Your task to perform on an android device: Open Android settings Image 0: 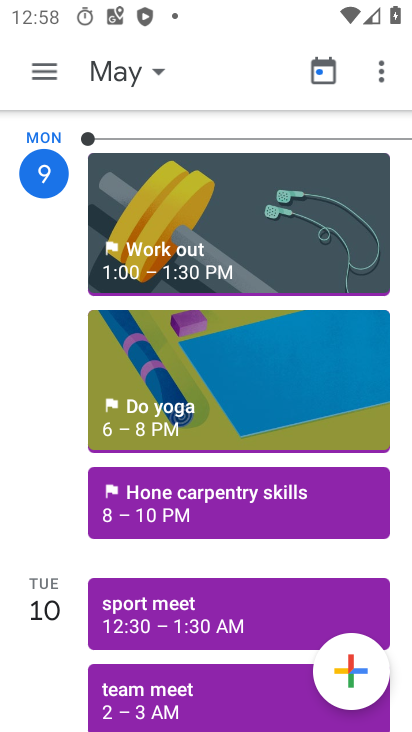
Step 0: press home button
Your task to perform on an android device: Open Android settings Image 1: 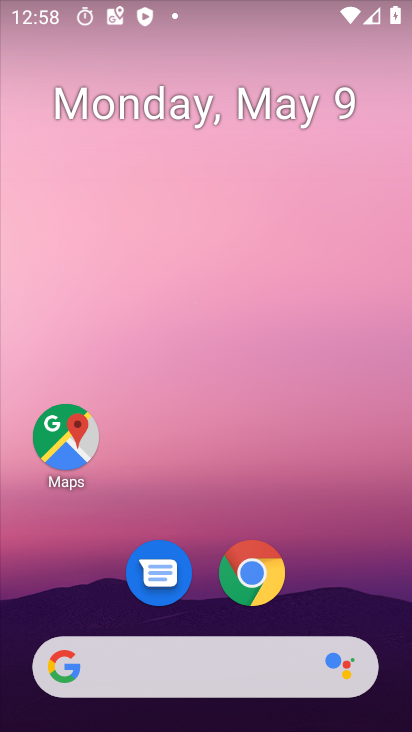
Step 1: drag from (319, 553) to (99, 120)
Your task to perform on an android device: Open Android settings Image 2: 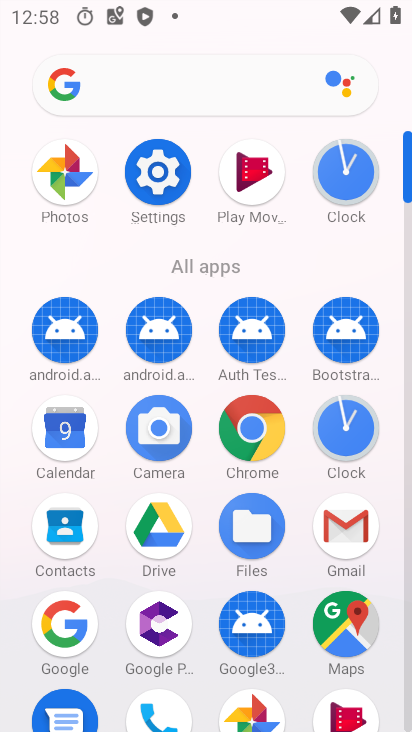
Step 2: click (139, 180)
Your task to perform on an android device: Open Android settings Image 3: 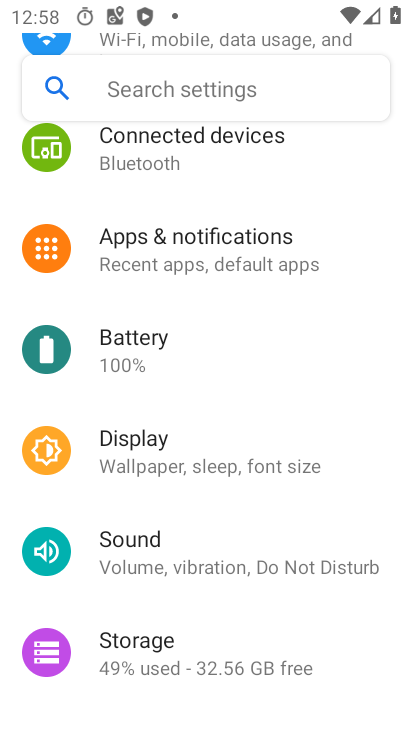
Step 3: drag from (223, 690) to (179, 174)
Your task to perform on an android device: Open Android settings Image 4: 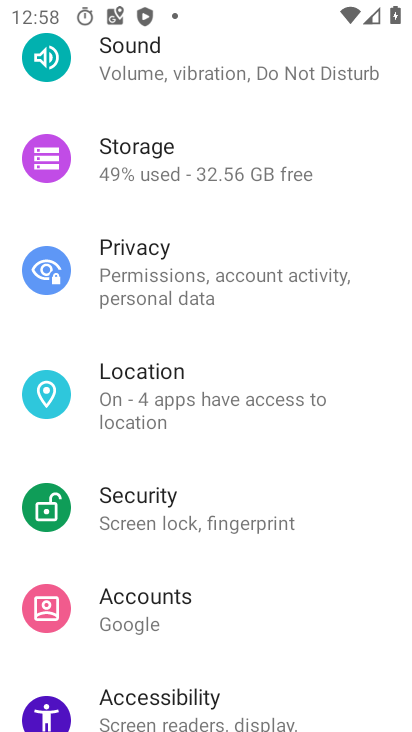
Step 4: drag from (198, 623) to (190, 224)
Your task to perform on an android device: Open Android settings Image 5: 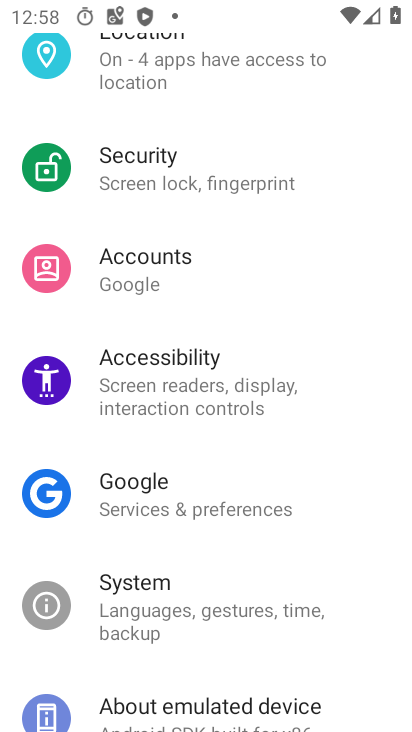
Step 5: drag from (197, 712) to (152, 252)
Your task to perform on an android device: Open Android settings Image 6: 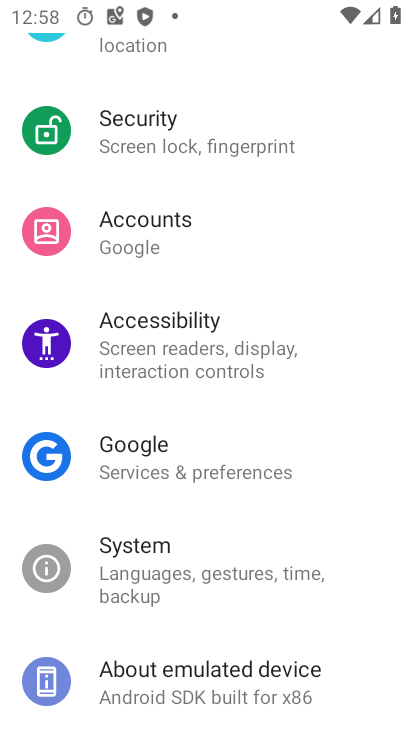
Step 6: click (202, 692)
Your task to perform on an android device: Open Android settings Image 7: 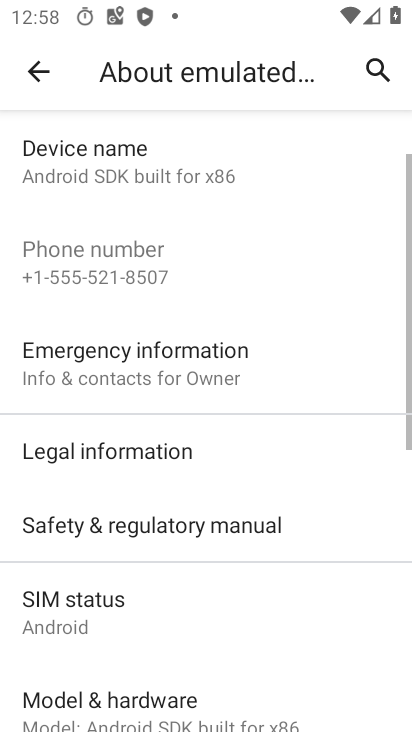
Step 7: task complete